Your task to perform on an android device: Open calendar and show me the fourth week of next month Image 0: 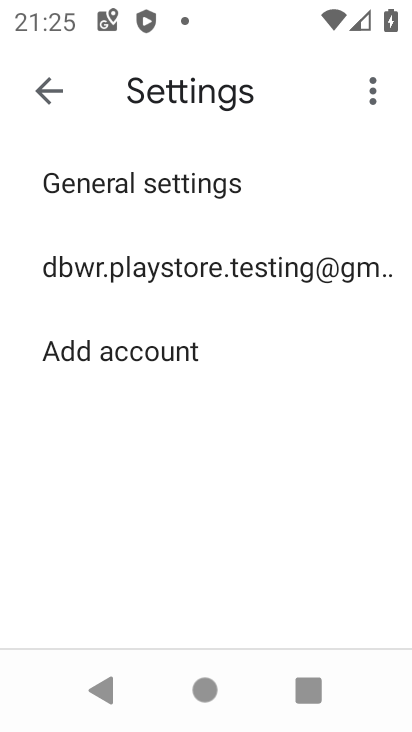
Step 0: task complete